Your task to perform on an android device: Show me the alarms in the clock app Image 0: 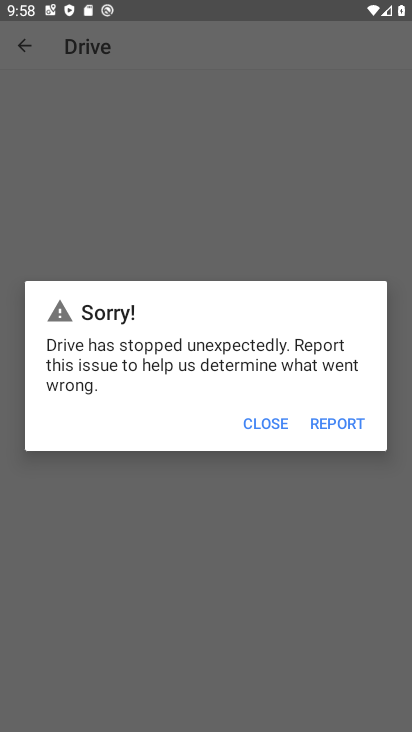
Step 0: press home button
Your task to perform on an android device: Show me the alarms in the clock app Image 1: 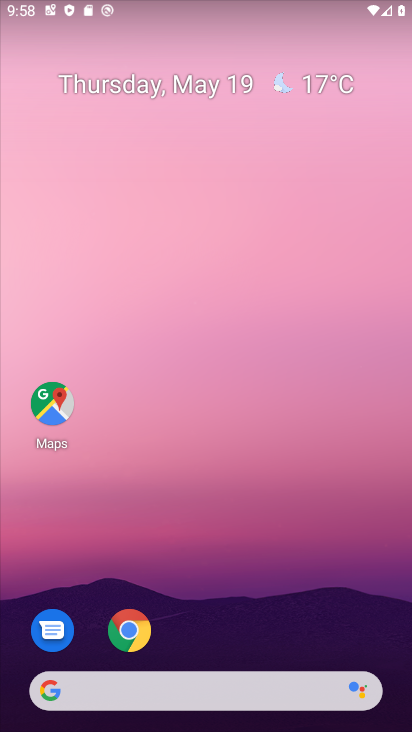
Step 1: drag from (272, 535) to (175, 73)
Your task to perform on an android device: Show me the alarms in the clock app Image 2: 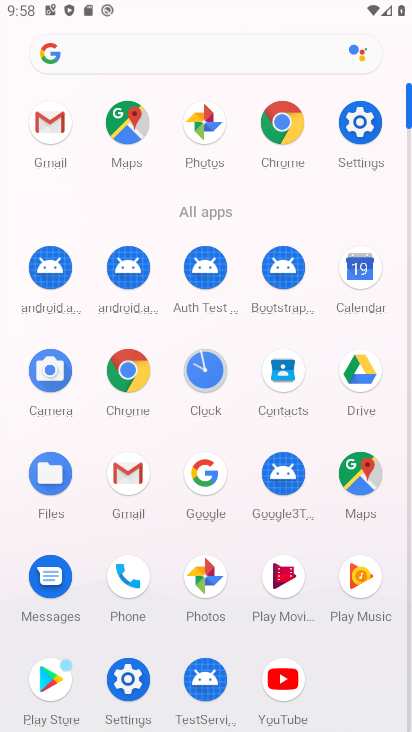
Step 2: click (208, 374)
Your task to perform on an android device: Show me the alarms in the clock app Image 3: 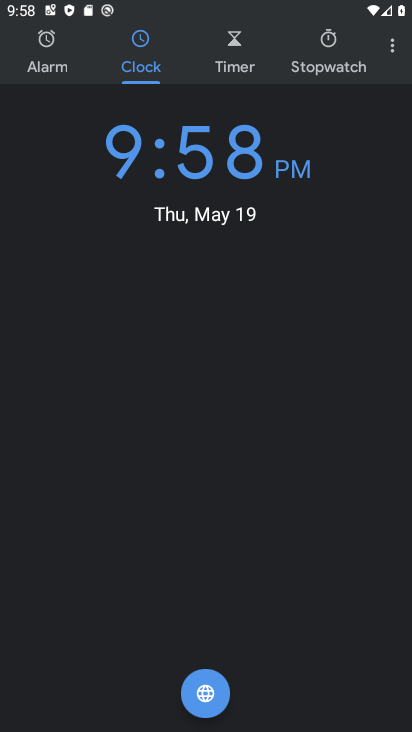
Step 3: click (45, 36)
Your task to perform on an android device: Show me the alarms in the clock app Image 4: 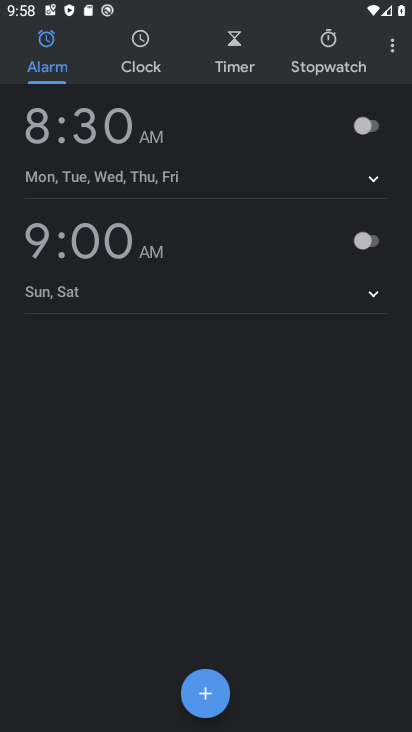
Step 4: task complete